Your task to perform on an android device: move a message to another label in the gmail app Image 0: 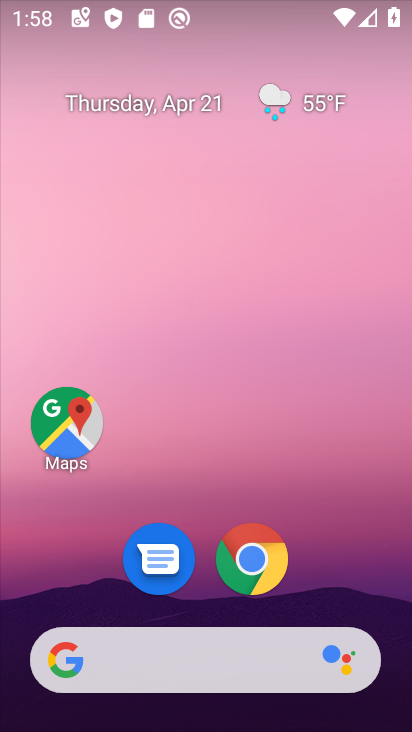
Step 0: drag from (161, 727) to (304, 159)
Your task to perform on an android device: move a message to another label in the gmail app Image 1: 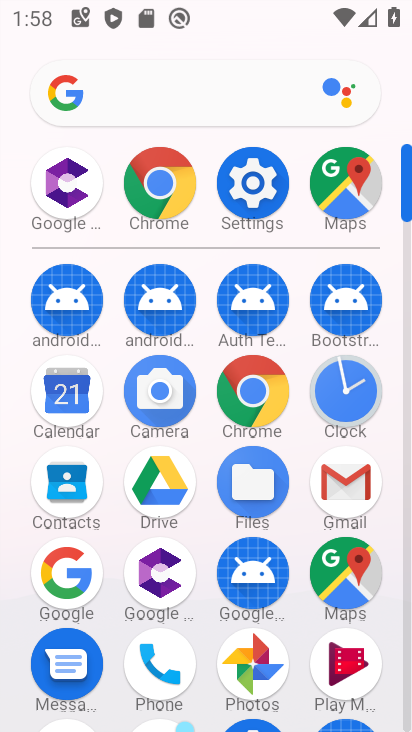
Step 1: drag from (210, 538) to (258, 218)
Your task to perform on an android device: move a message to another label in the gmail app Image 2: 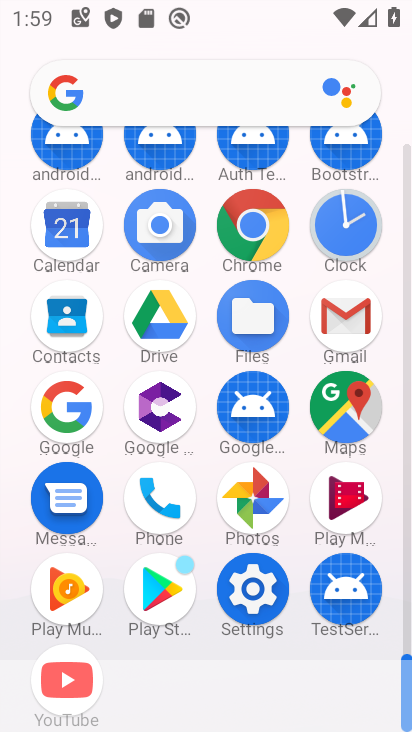
Step 2: drag from (228, 156) to (225, 61)
Your task to perform on an android device: move a message to another label in the gmail app Image 3: 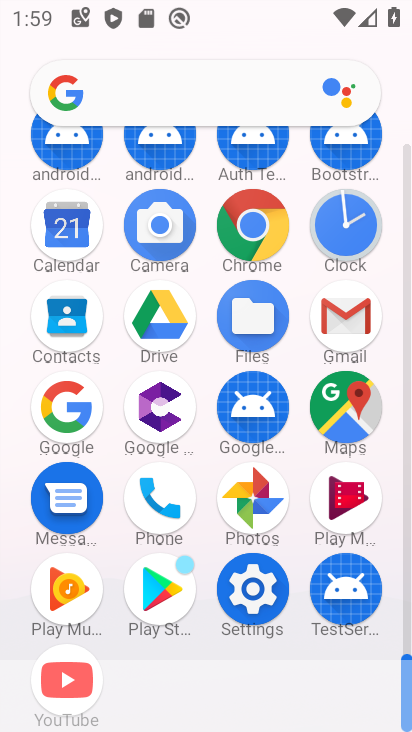
Step 3: drag from (210, 157) to (211, 541)
Your task to perform on an android device: move a message to another label in the gmail app Image 4: 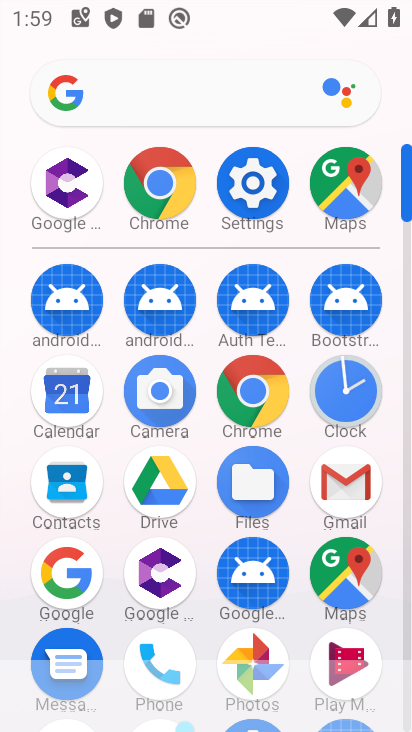
Step 4: click (351, 484)
Your task to perform on an android device: move a message to another label in the gmail app Image 5: 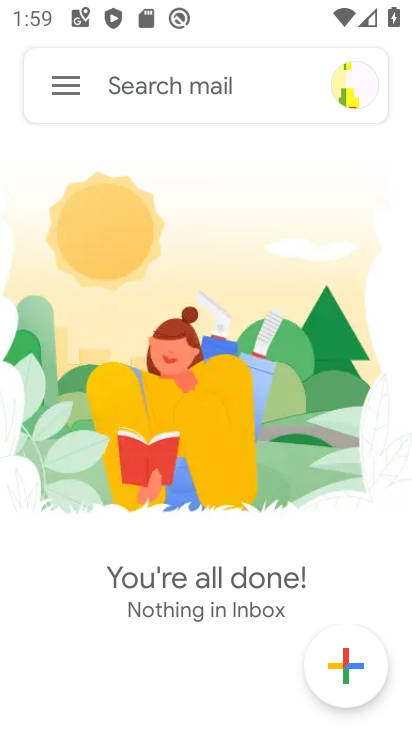
Step 5: click (68, 85)
Your task to perform on an android device: move a message to another label in the gmail app Image 6: 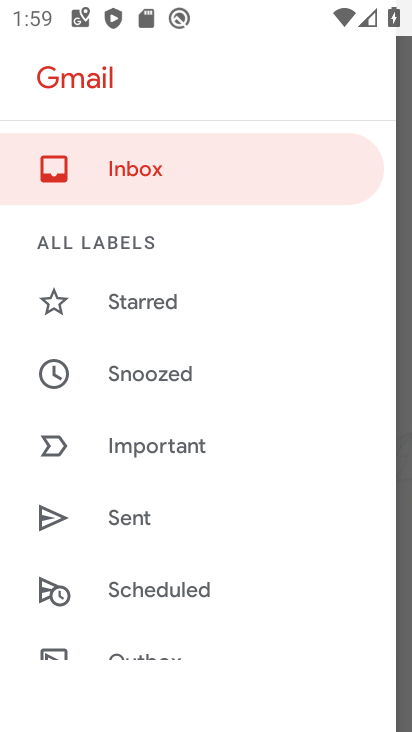
Step 6: task complete